Your task to perform on an android device: refresh tabs in the chrome app Image 0: 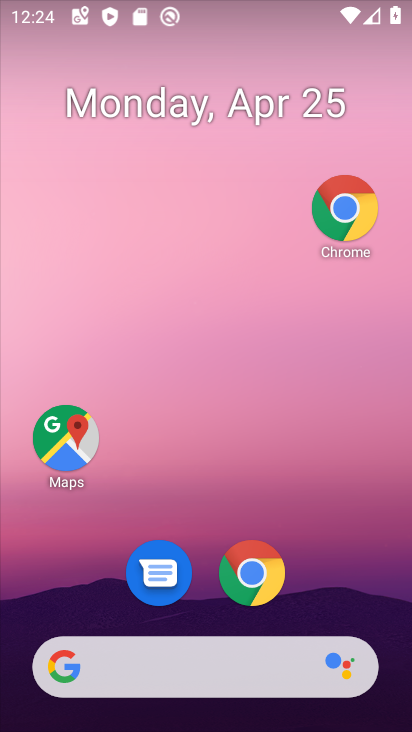
Step 0: drag from (231, 616) to (249, 82)
Your task to perform on an android device: refresh tabs in the chrome app Image 1: 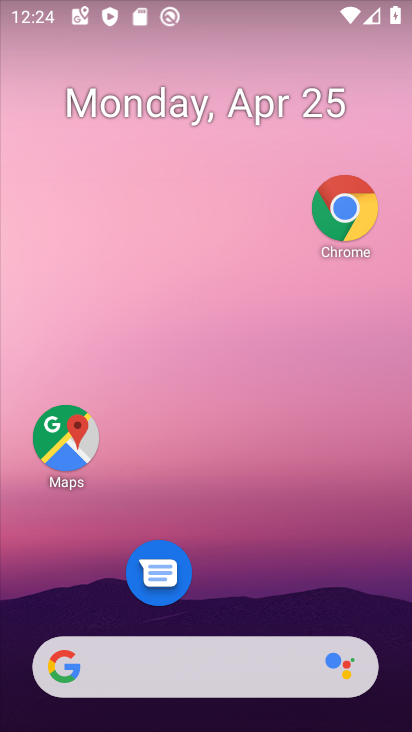
Step 1: drag from (216, 382) to (155, 140)
Your task to perform on an android device: refresh tabs in the chrome app Image 2: 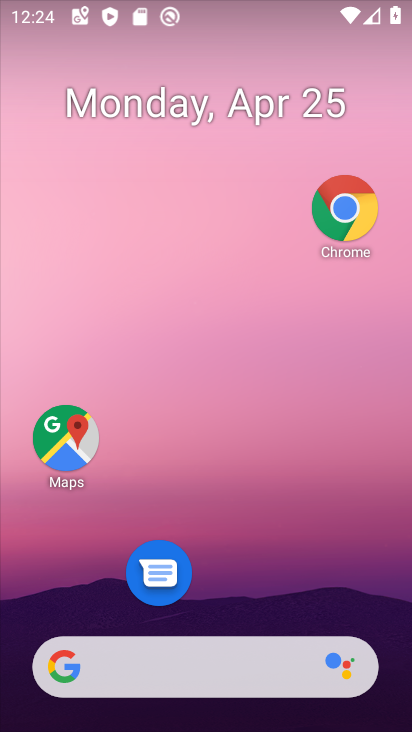
Step 2: drag from (255, 621) to (176, 52)
Your task to perform on an android device: refresh tabs in the chrome app Image 3: 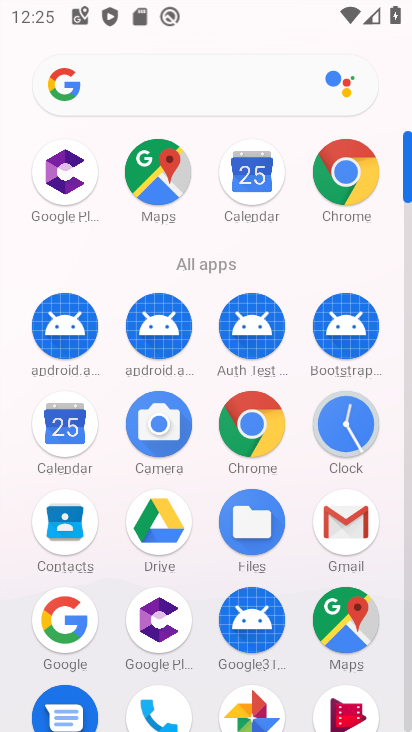
Step 3: click (339, 185)
Your task to perform on an android device: refresh tabs in the chrome app Image 4: 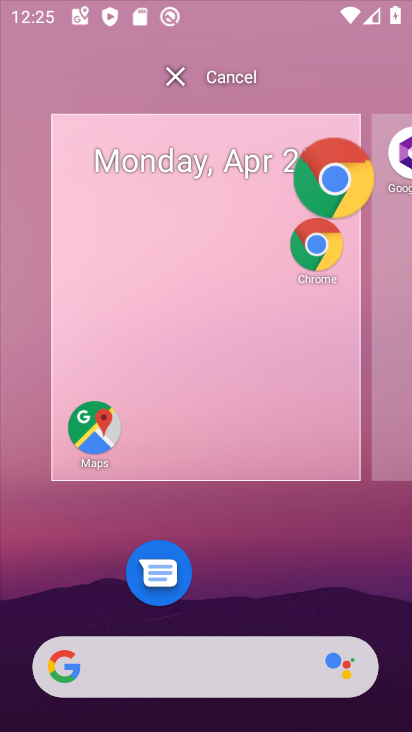
Step 4: click (332, 196)
Your task to perform on an android device: refresh tabs in the chrome app Image 5: 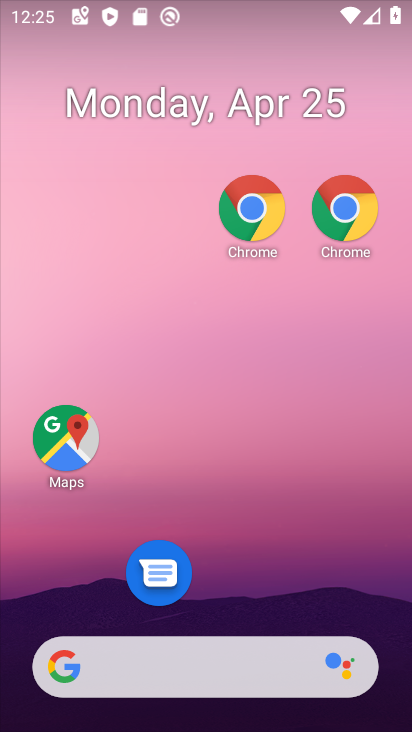
Step 5: drag from (236, 697) to (157, 167)
Your task to perform on an android device: refresh tabs in the chrome app Image 6: 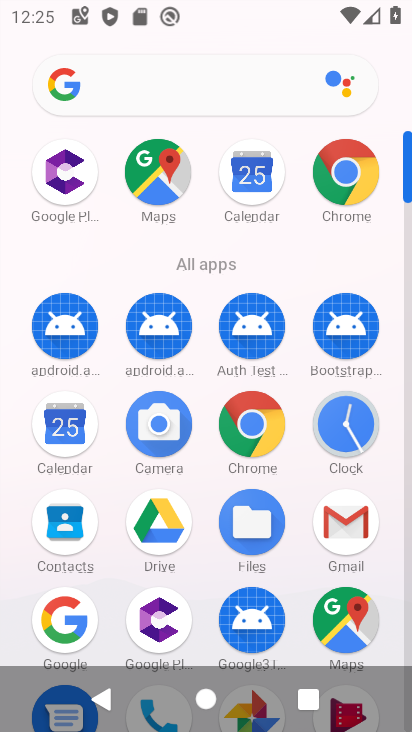
Step 6: drag from (262, 545) to (195, 74)
Your task to perform on an android device: refresh tabs in the chrome app Image 7: 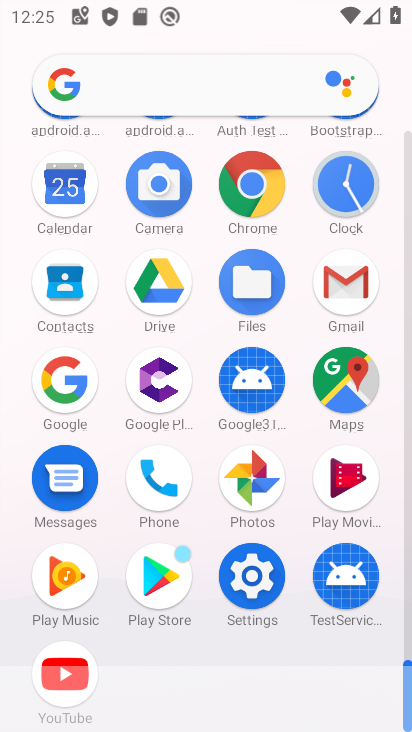
Step 7: click (250, 202)
Your task to perform on an android device: refresh tabs in the chrome app Image 8: 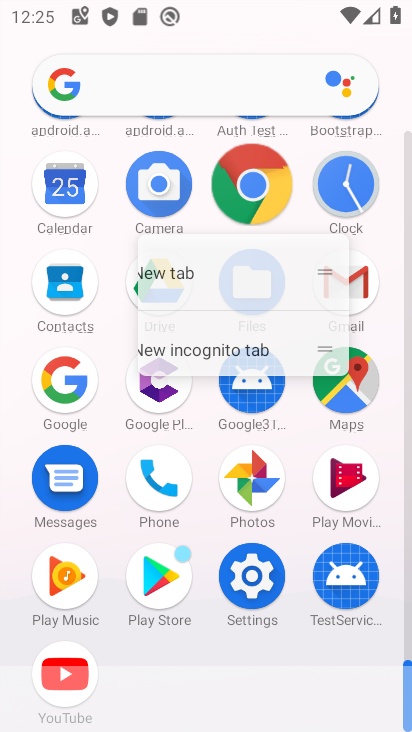
Step 8: click (250, 202)
Your task to perform on an android device: refresh tabs in the chrome app Image 9: 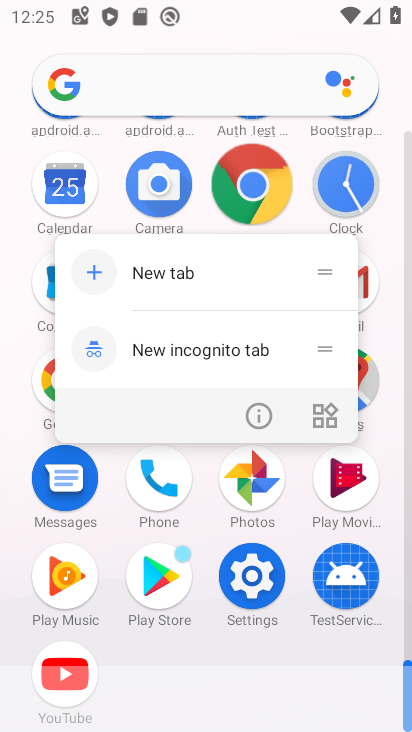
Step 9: click (250, 202)
Your task to perform on an android device: refresh tabs in the chrome app Image 10: 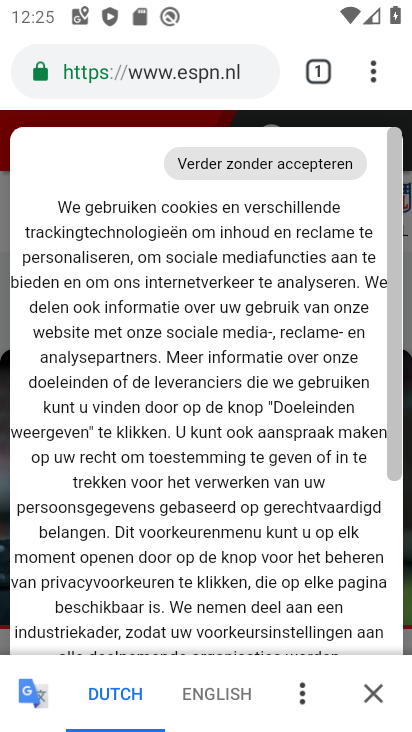
Step 10: click (375, 74)
Your task to perform on an android device: refresh tabs in the chrome app Image 11: 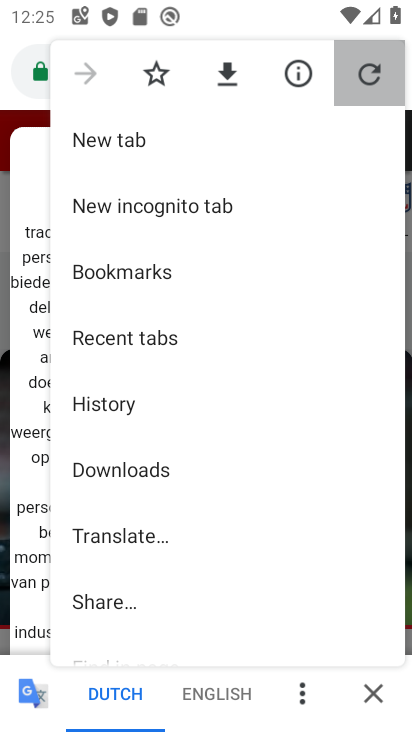
Step 11: click (366, 74)
Your task to perform on an android device: refresh tabs in the chrome app Image 12: 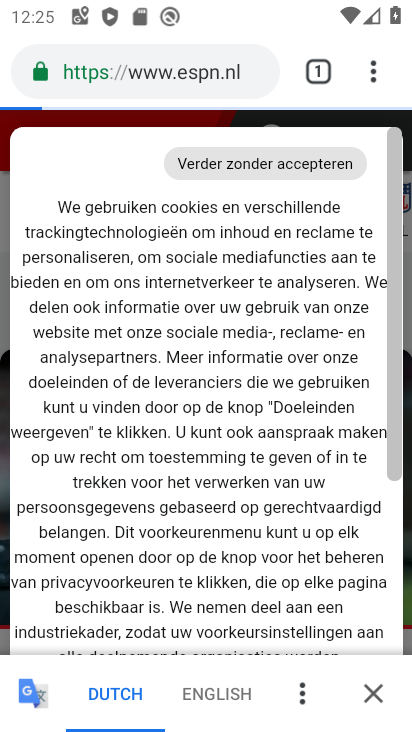
Step 12: click (366, 74)
Your task to perform on an android device: refresh tabs in the chrome app Image 13: 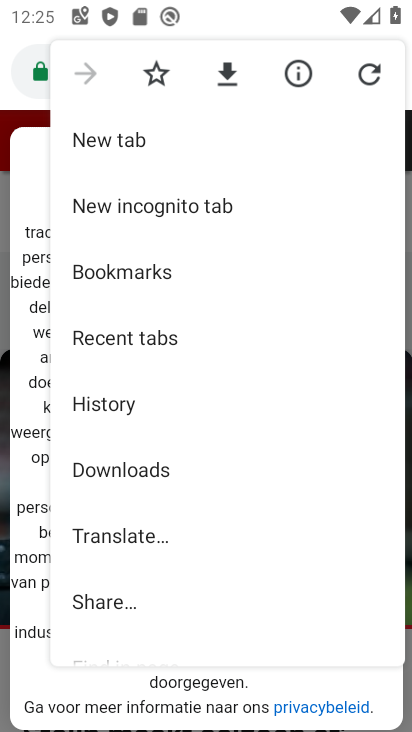
Step 13: click (371, 71)
Your task to perform on an android device: refresh tabs in the chrome app Image 14: 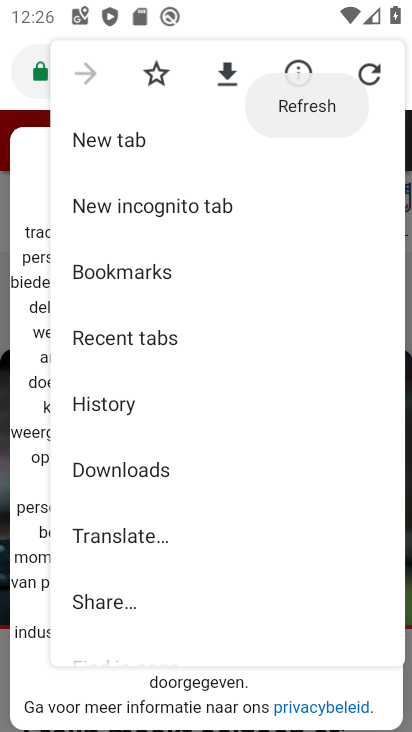
Step 14: click (320, 112)
Your task to perform on an android device: refresh tabs in the chrome app Image 15: 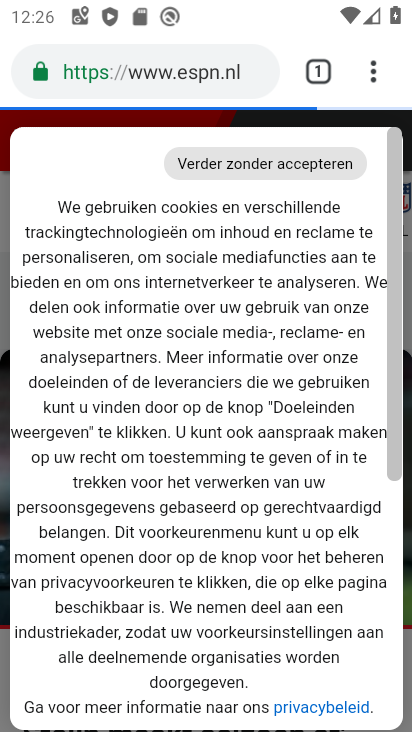
Step 15: task complete